Your task to perform on an android device: toggle javascript in the chrome app Image 0: 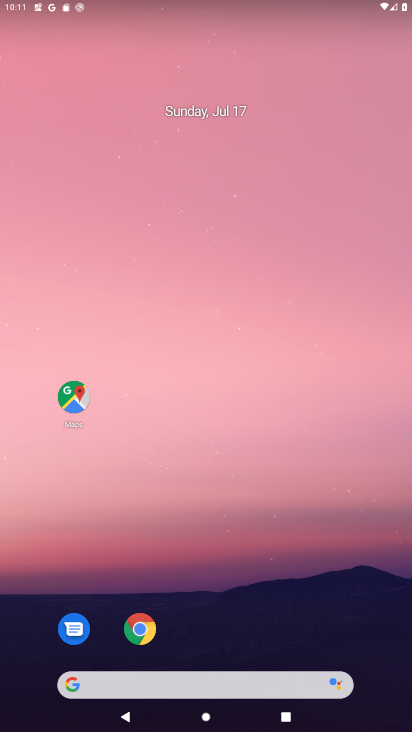
Step 0: click (138, 630)
Your task to perform on an android device: toggle javascript in the chrome app Image 1: 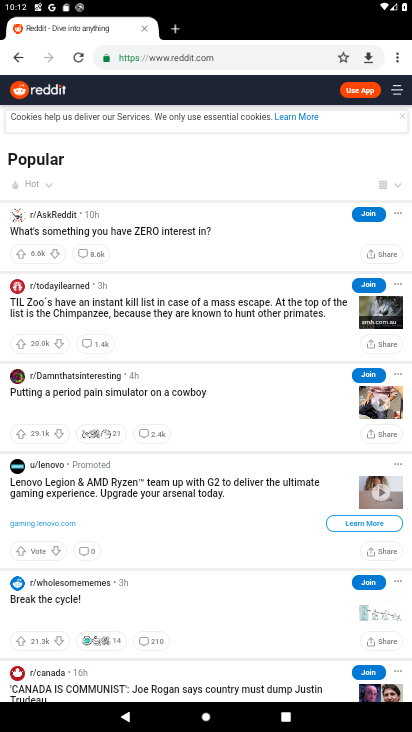
Step 1: click (398, 57)
Your task to perform on an android device: toggle javascript in the chrome app Image 2: 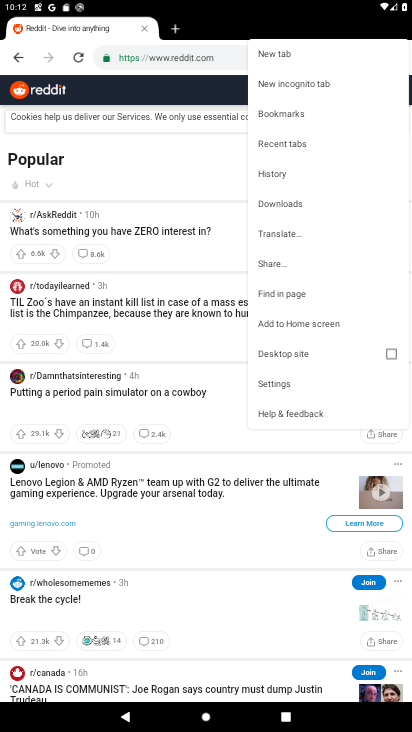
Step 2: click (286, 386)
Your task to perform on an android device: toggle javascript in the chrome app Image 3: 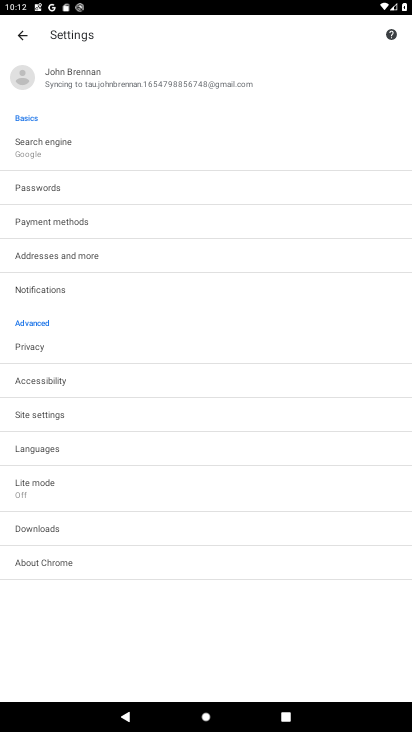
Step 3: click (60, 413)
Your task to perform on an android device: toggle javascript in the chrome app Image 4: 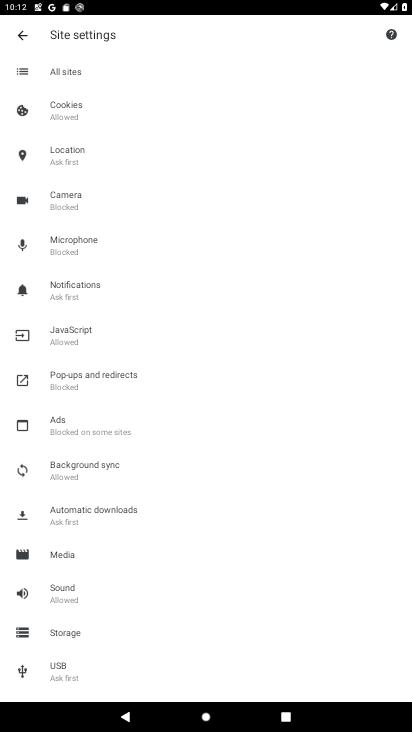
Step 4: click (79, 337)
Your task to perform on an android device: toggle javascript in the chrome app Image 5: 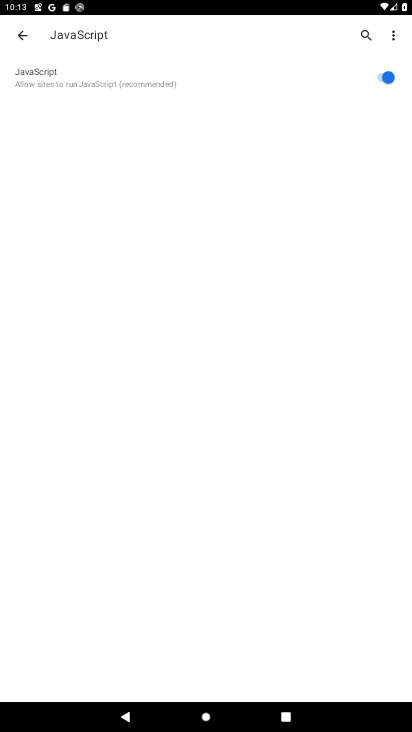
Step 5: click (396, 82)
Your task to perform on an android device: toggle javascript in the chrome app Image 6: 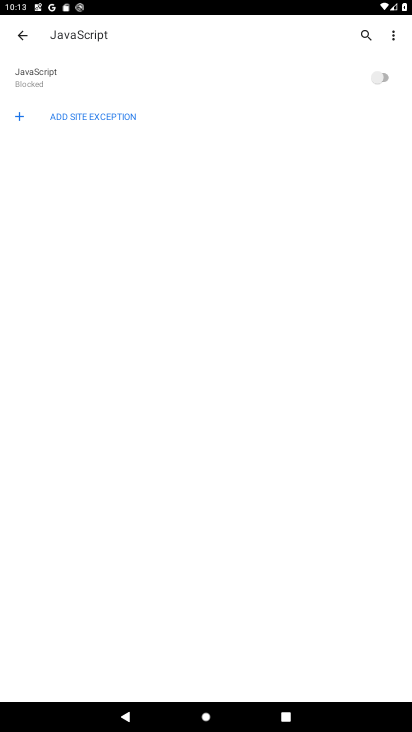
Step 6: task complete